Your task to perform on an android device: What time is it in Berlin? Image 0: 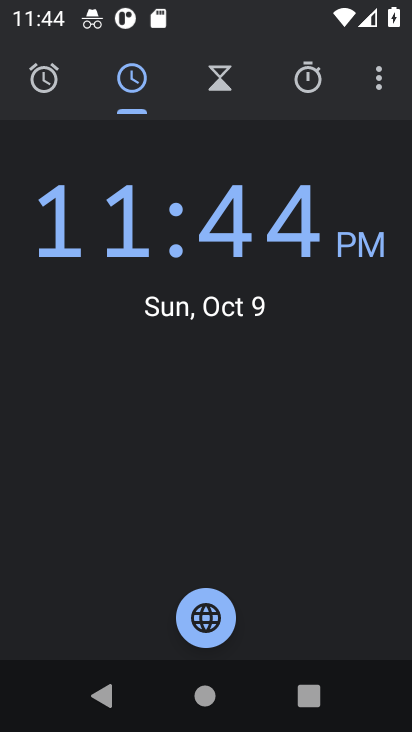
Step 0: press home button
Your task to perform on an android device: What time is it in Berlin? Image 1: 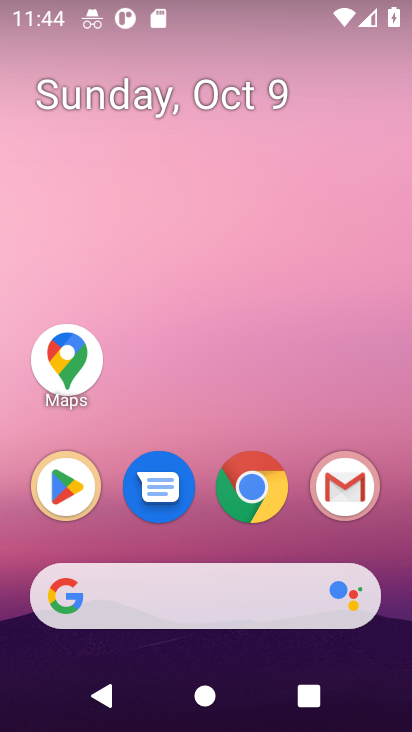
Step 1: click (260, 504)
Your task to perform on an android device: What time is it in Berlin? Image 2: 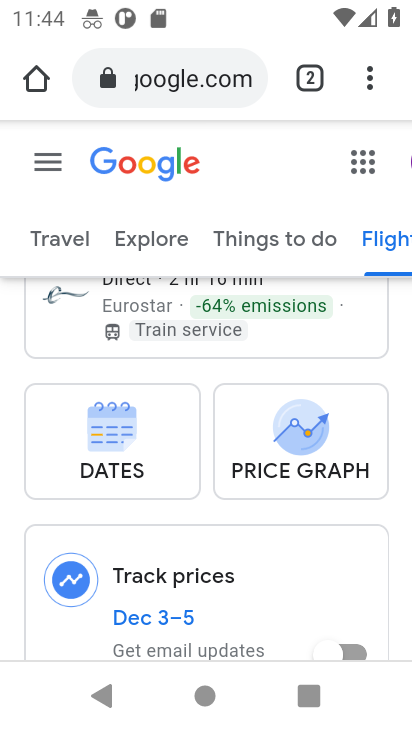
Step 2: click (202, 71)
Your task to perform on an android device: What time is it in Berlin? Image 3: 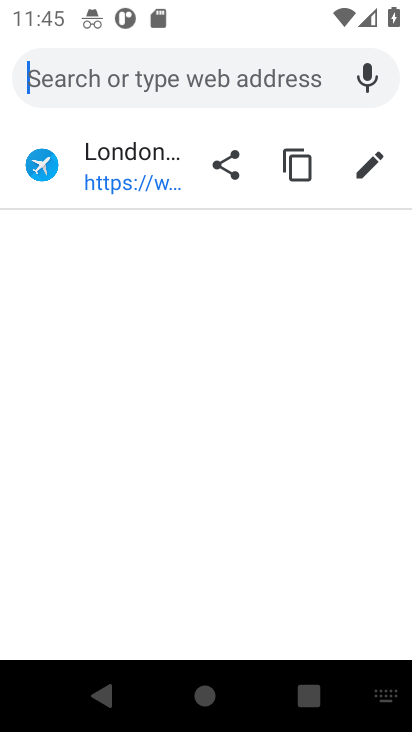
Step 3: type "what time is it in Berlin"
Your task to perform on an android device: What time is it in Berlin? Image 4: 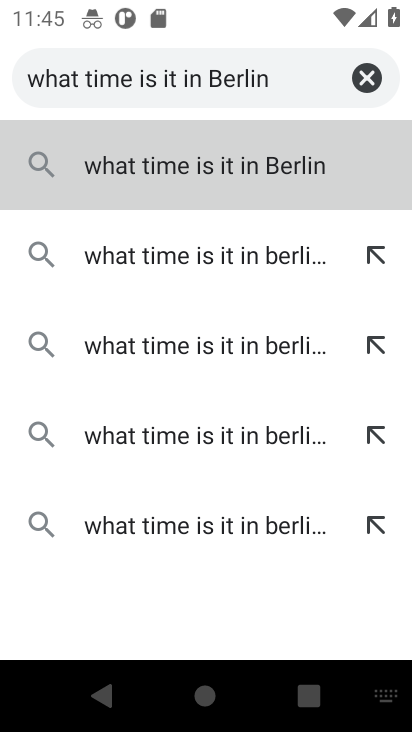
Step 4: type ""
Your task to perform on an android device: What time is it in Berlin? Image 5: 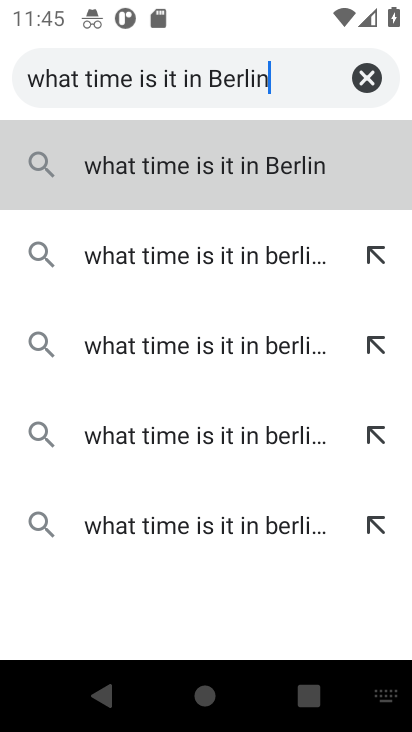
Step 5: press enter
Your task to perform on an android device: What time is it in Berlin? Image 6: 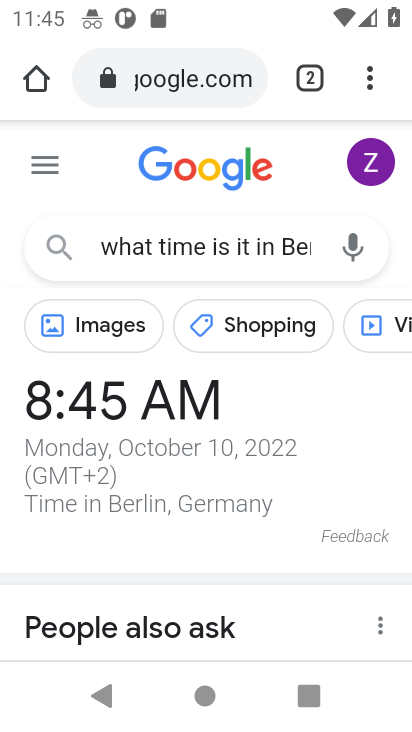
Step 6: drag from (260, 560) to (249, 245)
Your task to perform on an android device: What time is it in Berlin? Image 7: 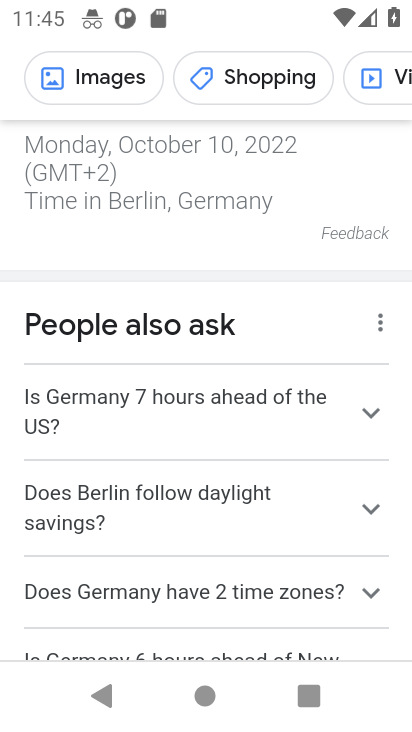
Step 7: drag from (231, 487) to (226, 210)
Your task to perform on an android device: What time is it in Berlin? Image 8: 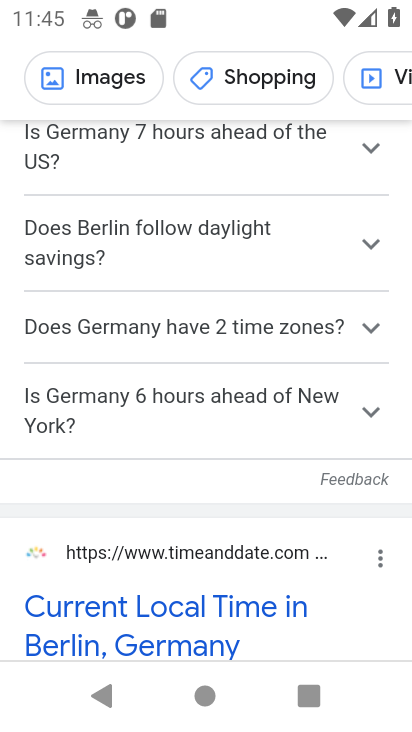
Step 8: drag from (242, 550) to (226, 229)
Your task to perform on an android device: What time is it in Berlin? Image 9: 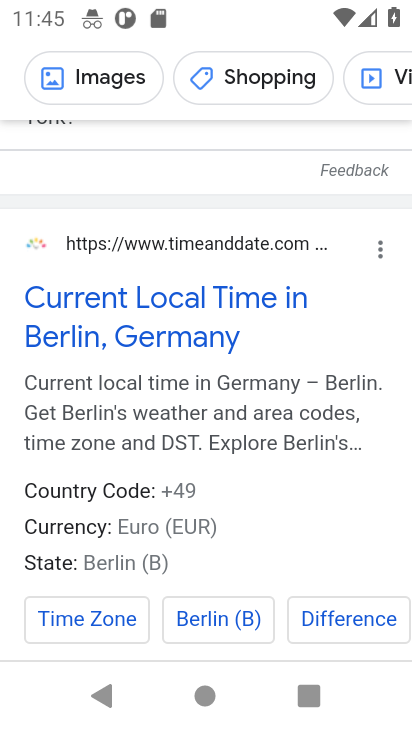
Step 9: drag from (162, 503) to (145, 220)
Your task to perform on an android device: What time is it in Berlin? Image 10: 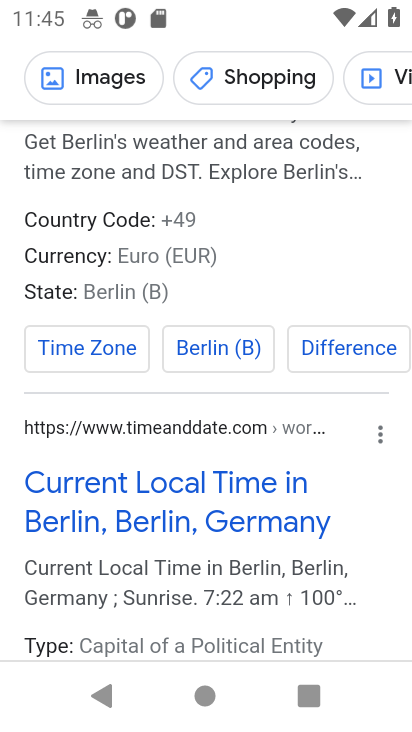
Step 10: drag from (178, 338) to (165, 233)
Your task to perform on an android device: What time is it in Berlin? Image 11: 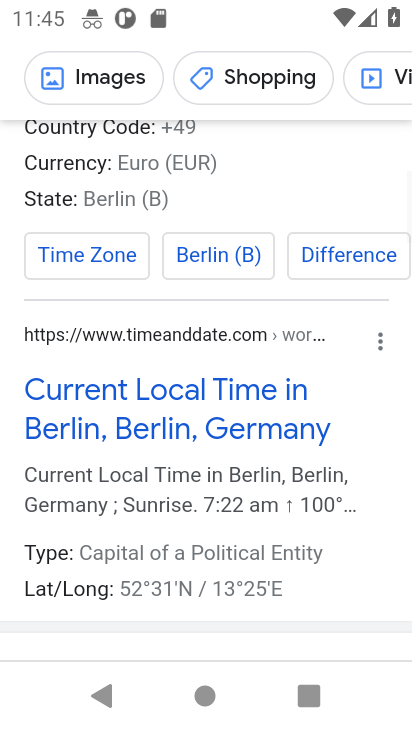
Step 11: drag from (197, 518) to (187, 290)
Your task to perform on an android device: What time is it in Berlin? Image 12: 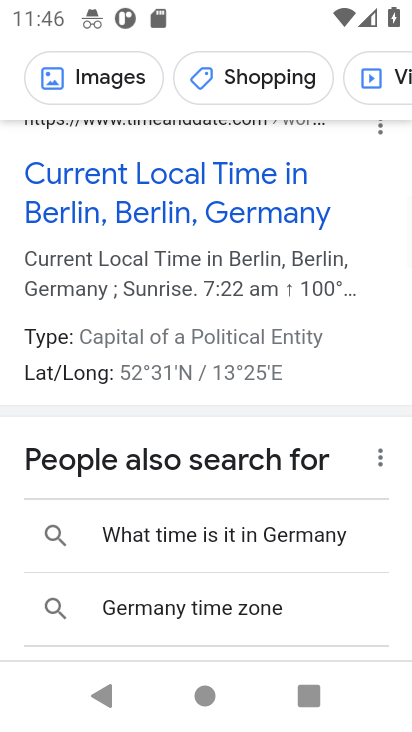
Step 12: drag from (213, 468) to (217, 312)
Your task to perform on an android device: What time is it in Berlin? Image 13: 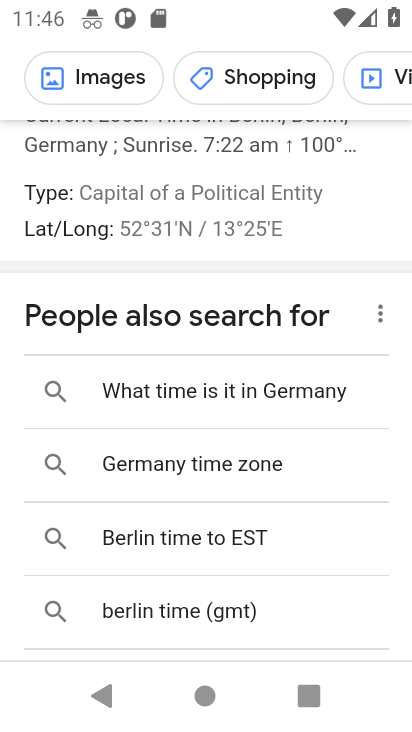
Step 13: drag from (320, 290) to (316, 595)
Your task to perform on an android device: What time is it in Berlin? Image 14: 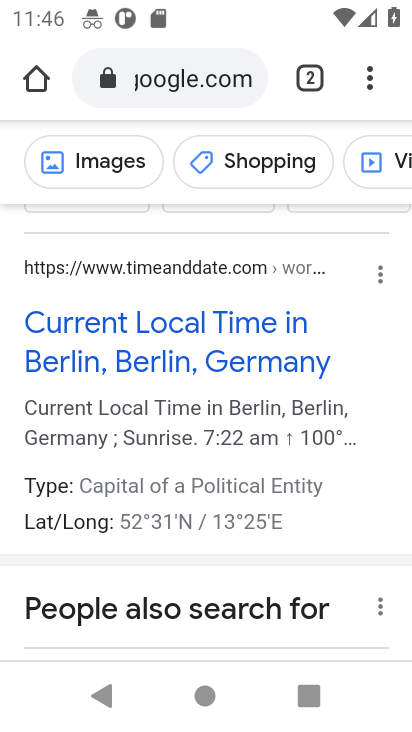
Step 14: drag from (299, 286) to (289, 592)
Your task to perform on an android device: What time is it in Berlin? Image 15: 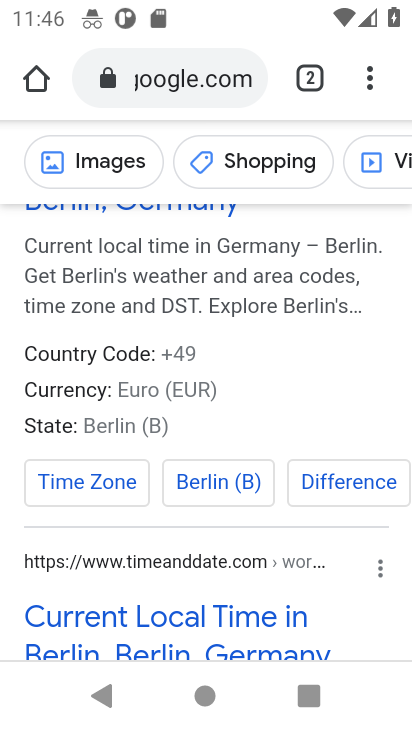
Step 15: click (281, 570)
Your task to perform on an android device: What time is it in Berlin? Image 16: 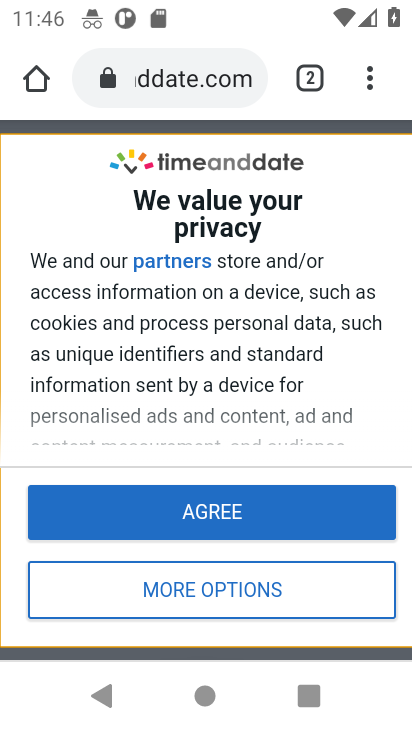
Step 16: task complete